Your task to perform on an android device: toggle data saver in the chrome app Image 0: 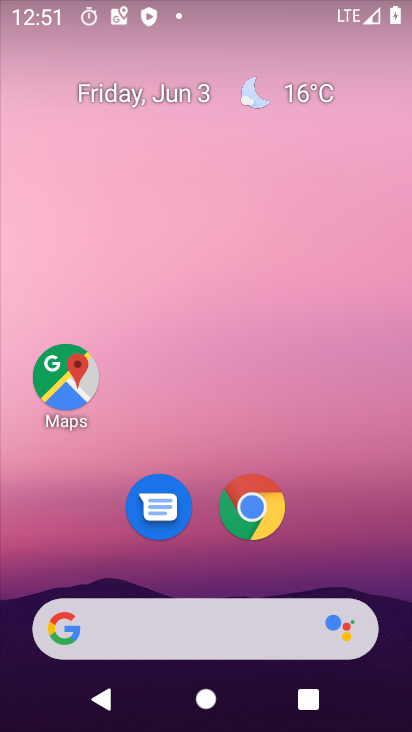
Step 0: drag from (394, 637) to (274, 71)
Your task to perform on an android device: toggle data saver in the chrome app Image 1: 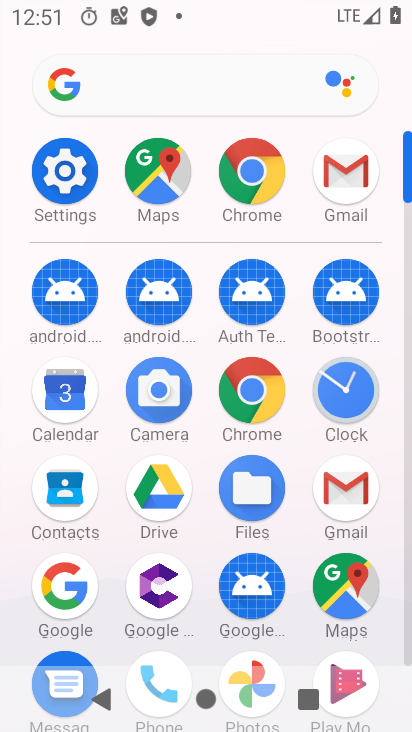
Step 1: click (273, 199)
Your task to perform on an android device: toggle data saver in the chrome app Image 2: 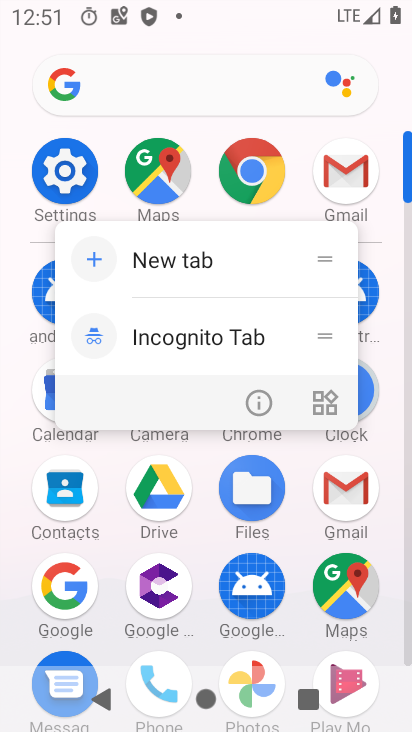
Step 2: click (273, 199)
Your task to perform on an android device: toggle data saver in the chrome app Image 3: 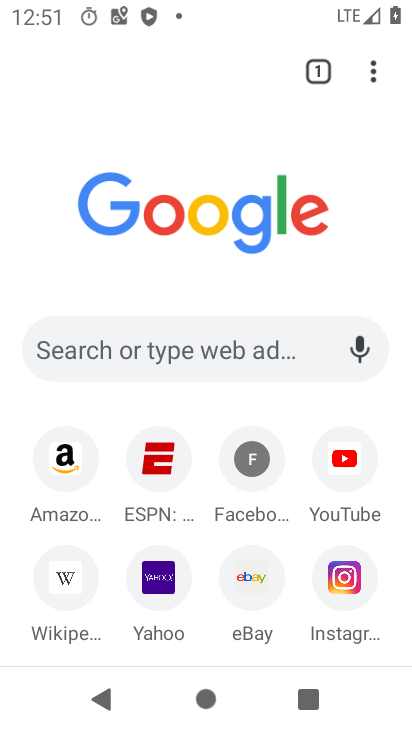
Step 3: click (371, 61)
Your task to perform on an android device: toggle data saver in the chrome app Image 4: 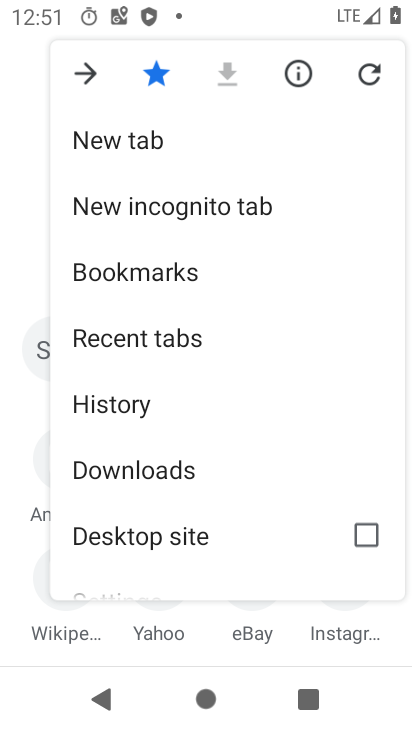
Step 4: drag from (216, 536) to (232, 168)
Your task to perform on an android device: toggle data saver in the chrome app Image 5: 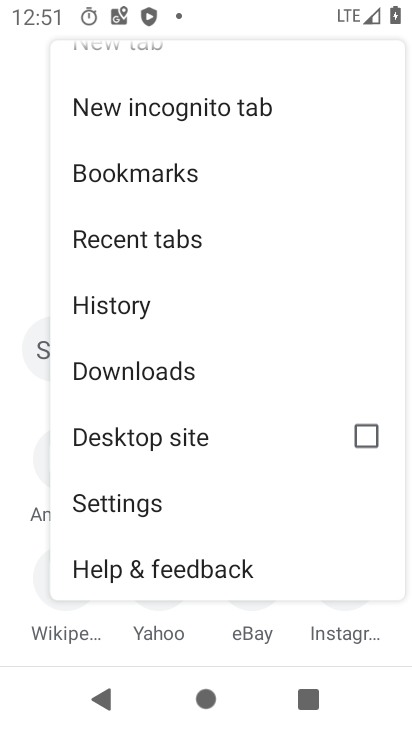
Step 5: click (175, 492)
Your task to perform on an android device: toggle data saver in the chrome app Image 6: 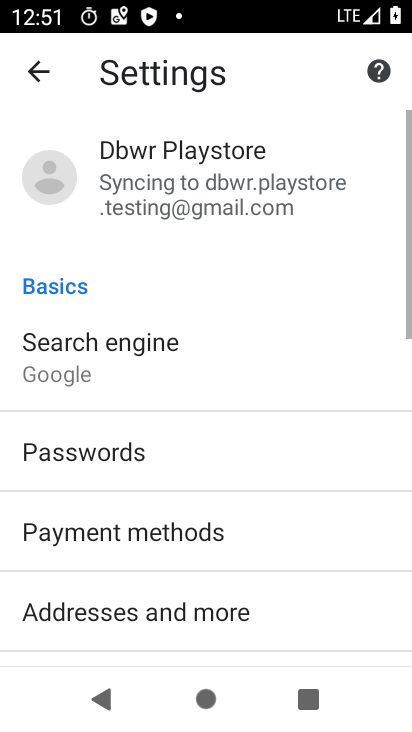
Step 6: drag from (170, 602) to (189, 142)
Your task to perform on an android device: toggle data saver in the chrome app Image 7: 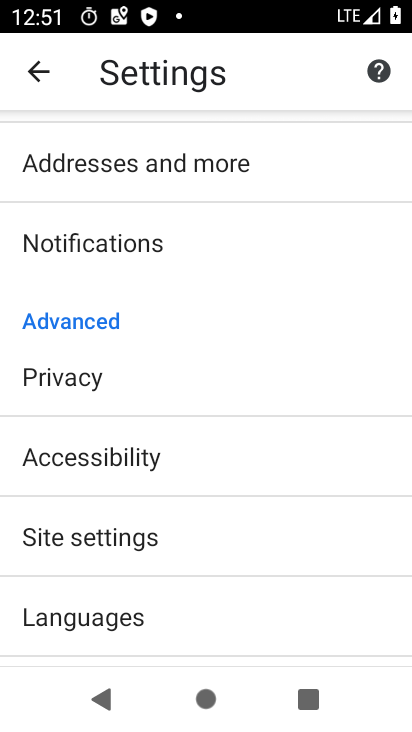
Step 7: drag from (145, 616) to (213, 280)
Your task to perform on an android device: toggle data saver in the chrome app Image 8: 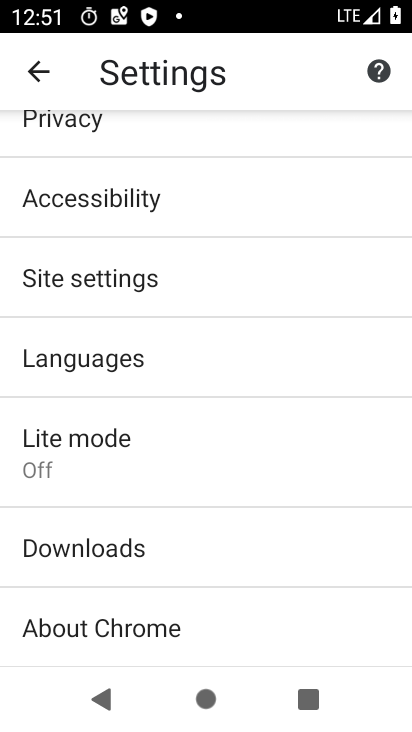
Step 8: click (184, 454)
Your task to perform on an android device: toggle data saver in the chrome app Image 9: 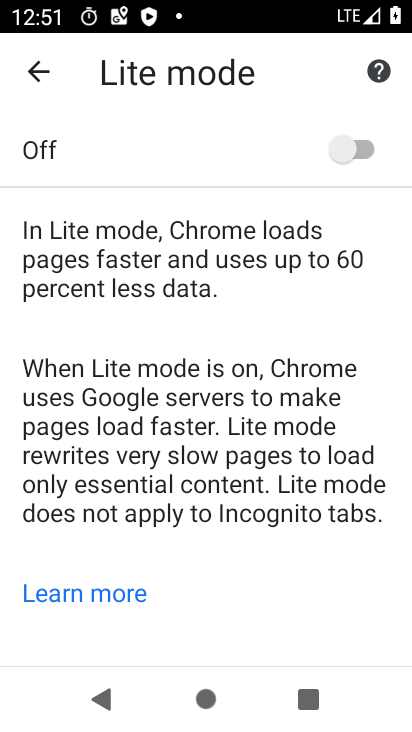
Step 9: click (370, 146)
Your task to perform on an android device: toggle data saver in the chrome app Image 10: 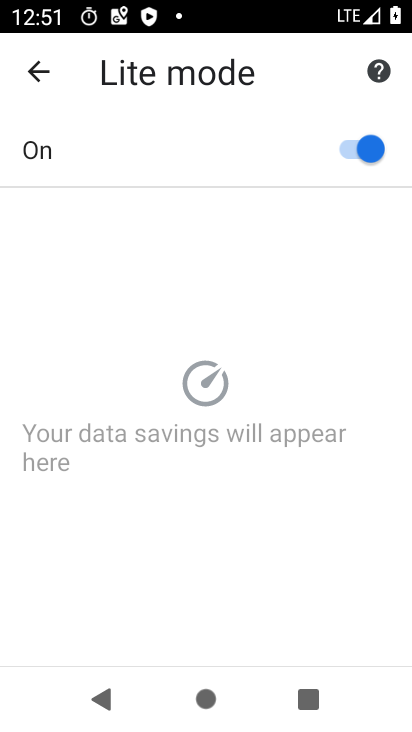
Step 10: task complete